Your task to perform on an android device: Check the news Image 0: 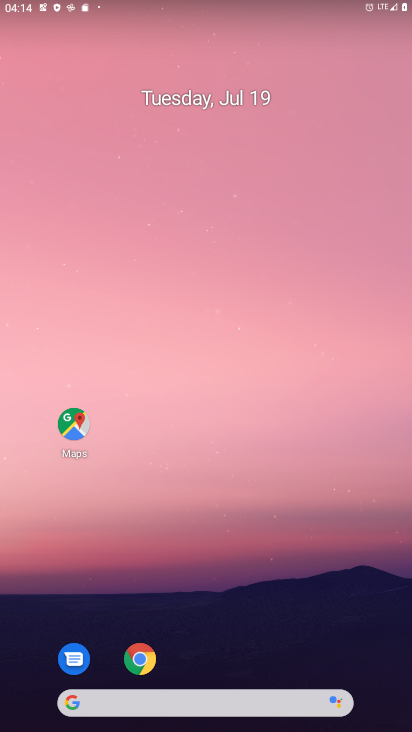
Step 0: press home button
Your task to perform on an android device: Check the news Image 1: 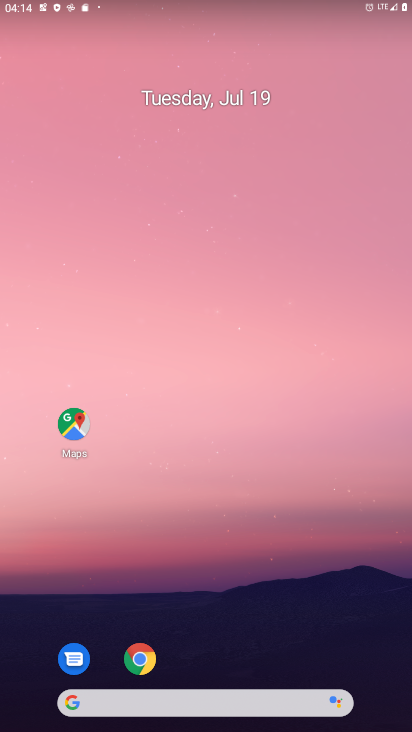
Step 1: click (118, 667)
Your task to perform on an android device: Check the news Image 2: 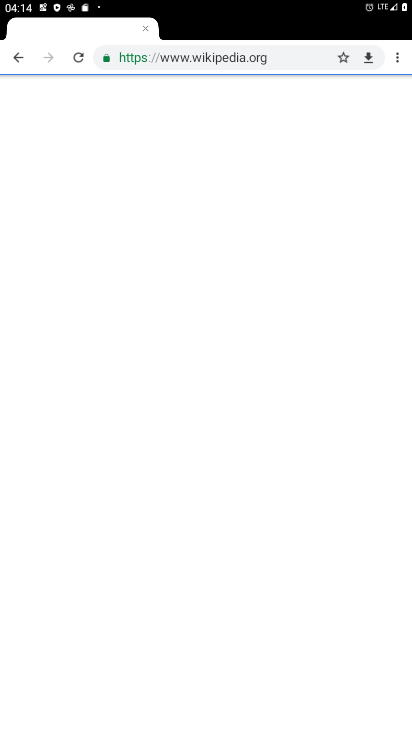
Step 2: click (262, 54)
Your task to perform on an android device: Check the news Image 3: 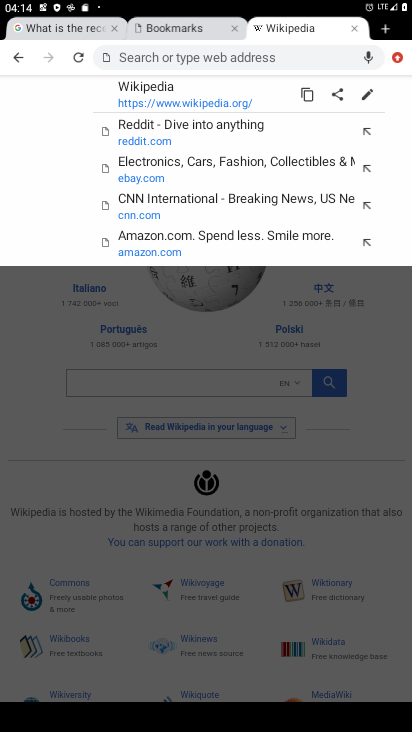
Step 3: type "news"
Your task to perform on an android device: Check the news Image 4: 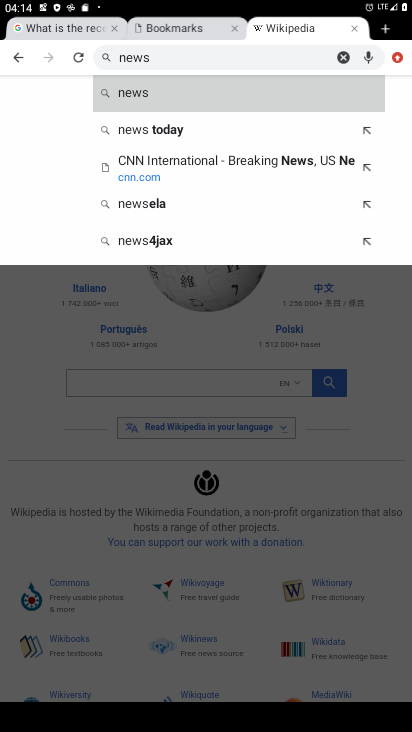
Step 4: click (117, 89)
Your task to perform on an android device: Check the news Image 5: 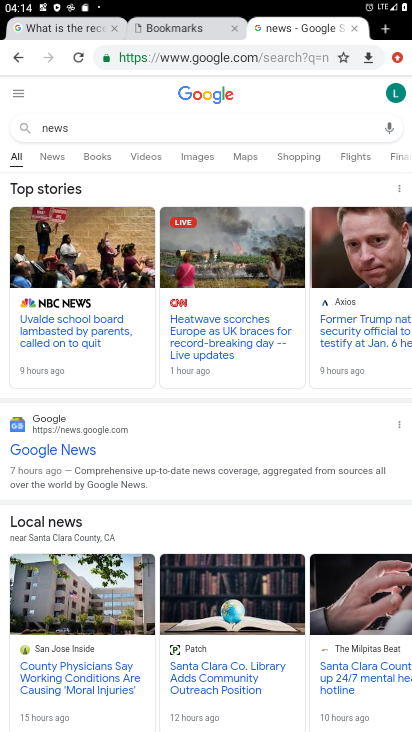
Step 5: task complete